Your task to perform on an android device: show emergency info Image 0: 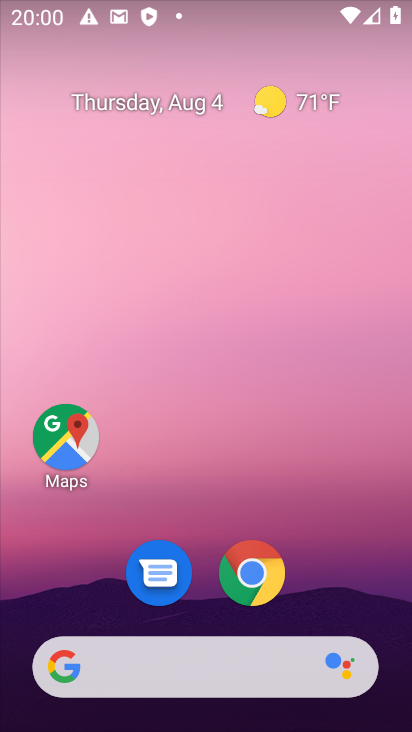
Step 0: drag from (205, 663) to (204, 173)
Your task to perform on an android device: show emergency info Image 1: 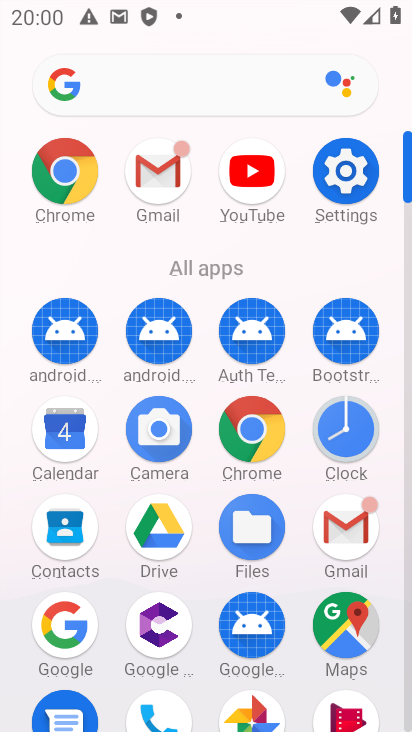
Step 1: click (358, 172)
Your task to perform on an android device: show emergency info Image 2: 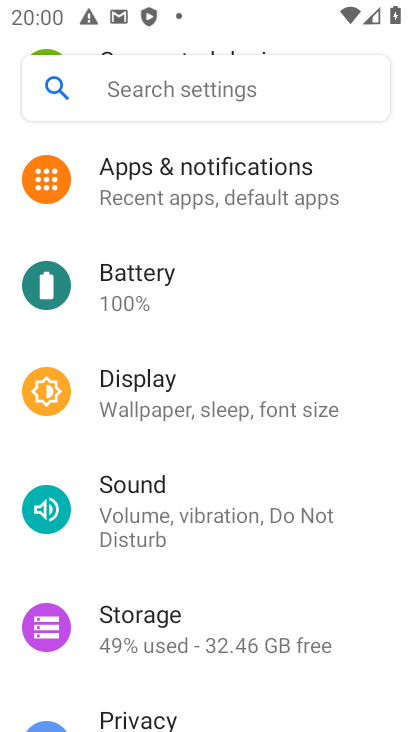
Step 2: drag from (272, 245) to (277, 197)
Your task to perform on an android device: show emergency info Image 3: 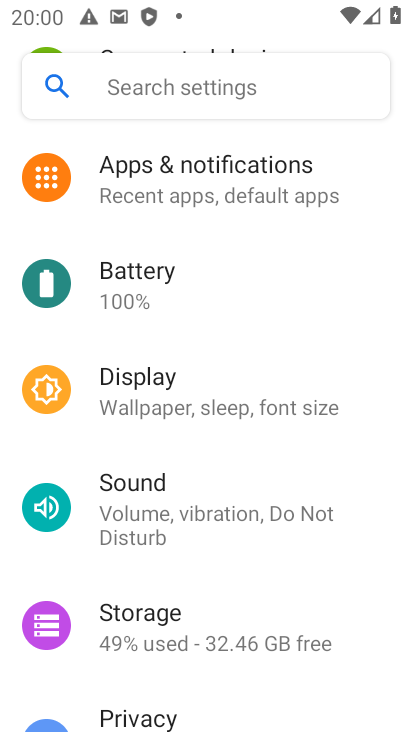
Step 3: drag from (265, 607) to (233, 71)
Your task to perform on an android device: show emergency info Image 4: 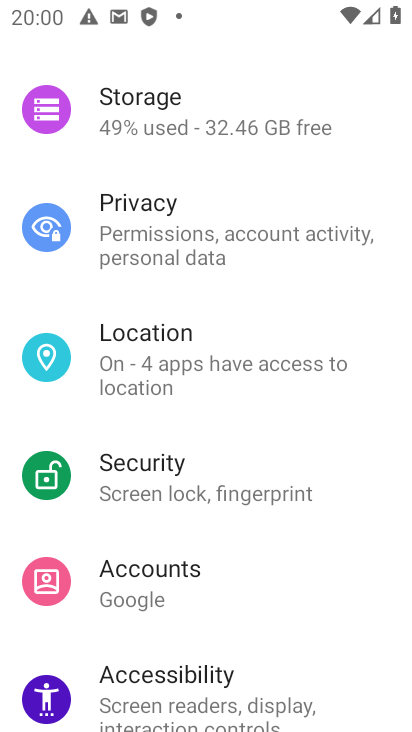
Step 4: drag from (163, 615) to (132, 45)
Your task to perform on an android device: show emergency info Image 5: 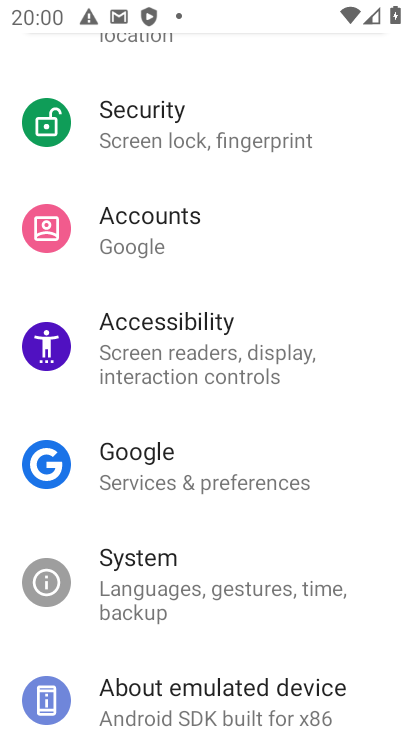
Step 5: click (244, 718)
Your task to perform on an android device: show emergency info Image 6: 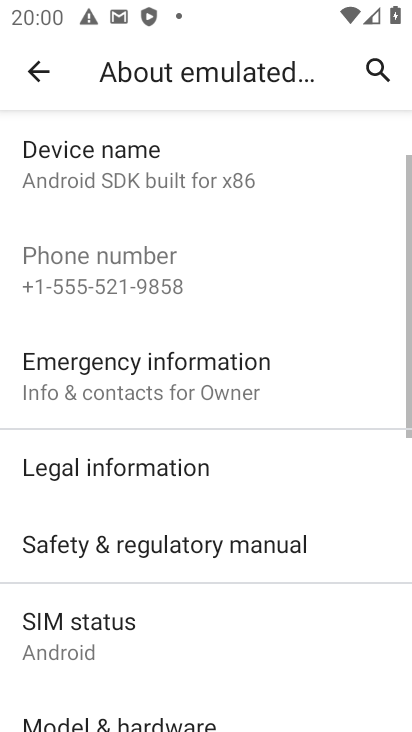
Step 6: click (182, 390)
Your task to perform on an android device: show emergency info Image 7: 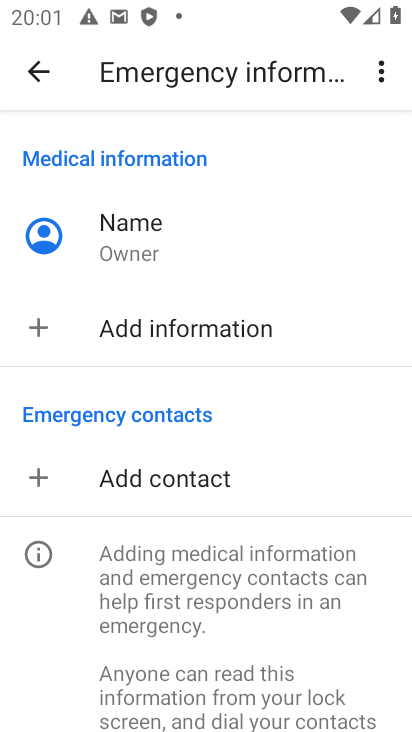
Step 7: task complete